Your task to perform on an android device: uninstall "Google Keep" Image 0: 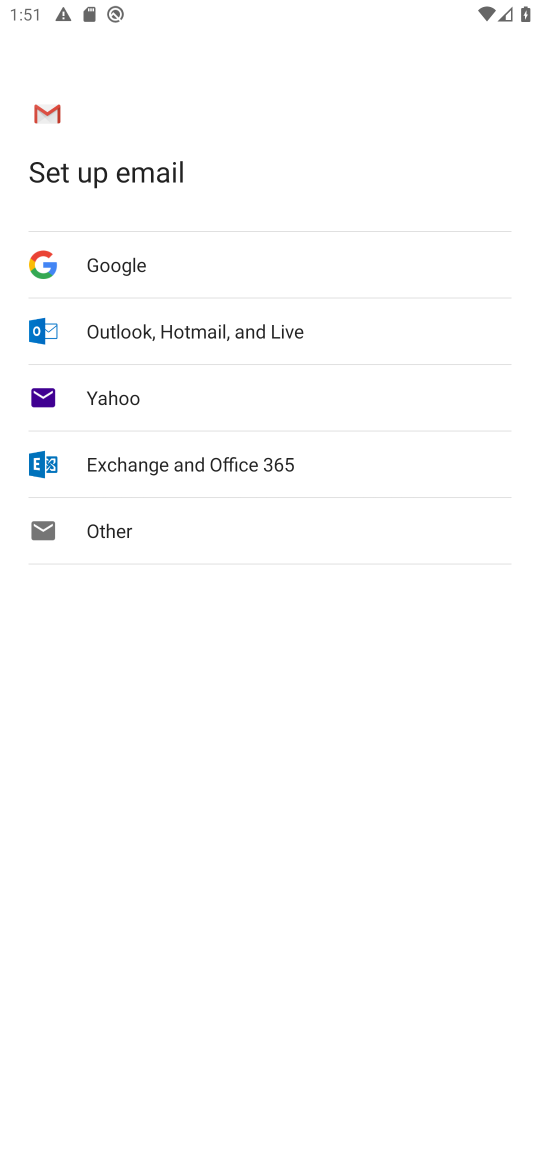
Step 0: press home button
Your task to perform on an android device: uninstall "Google Keep" Image 1: 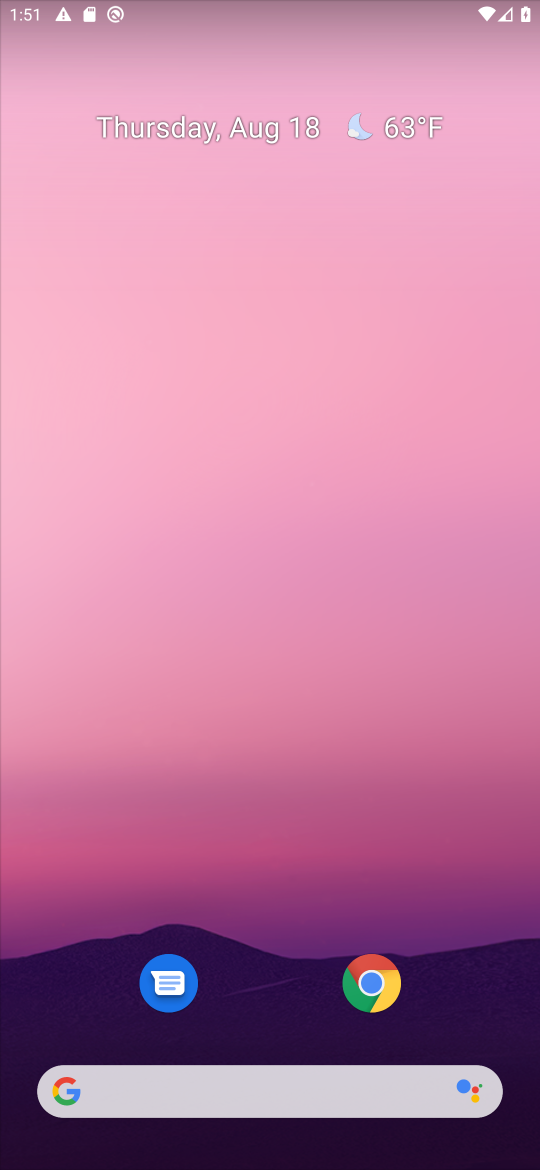
Step 1: drag from (452, 981) to (354, 172)
Your task to perform on an android device: uninstall "Google Keep" Image 2: 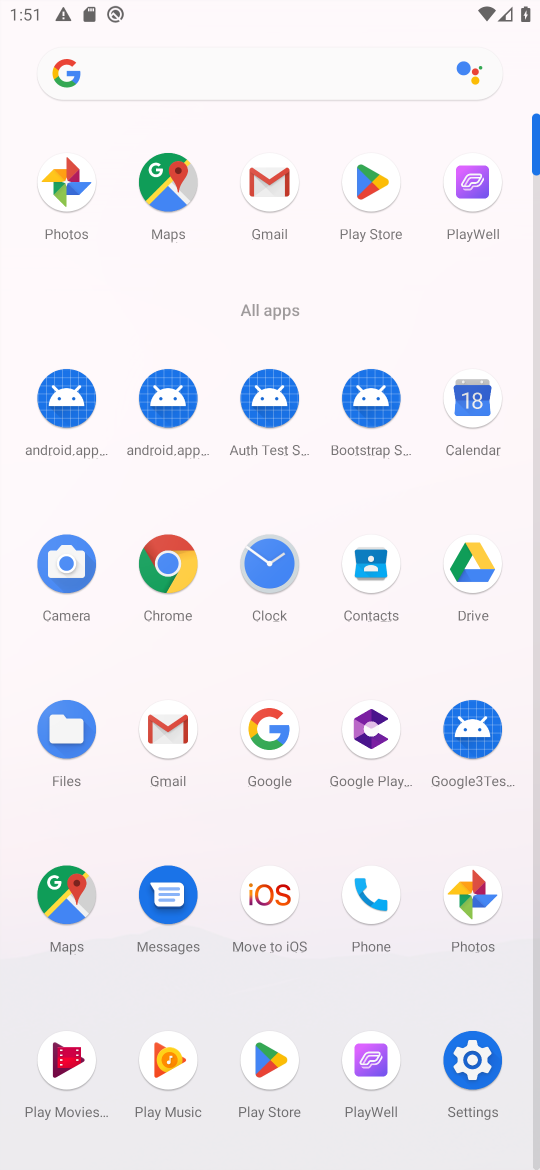
Step 2: click (354, 191)
Your task to perform on an android device: uninstall "Google Keep" Image 3: 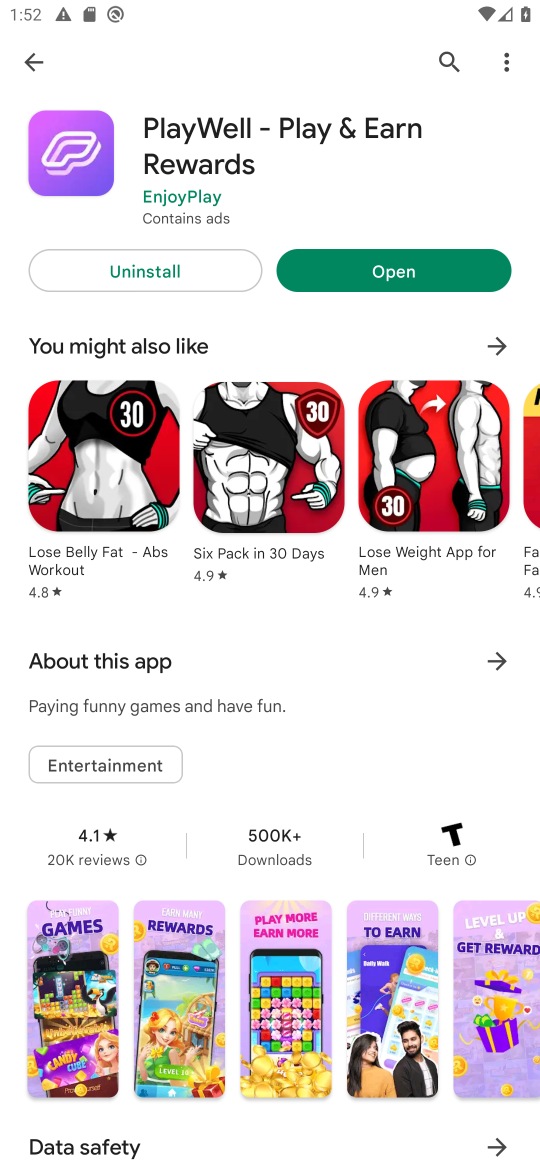
Step 3: click (453, 65)
Your task to perform on an android device: uninstall "Google Keep" Image 4: 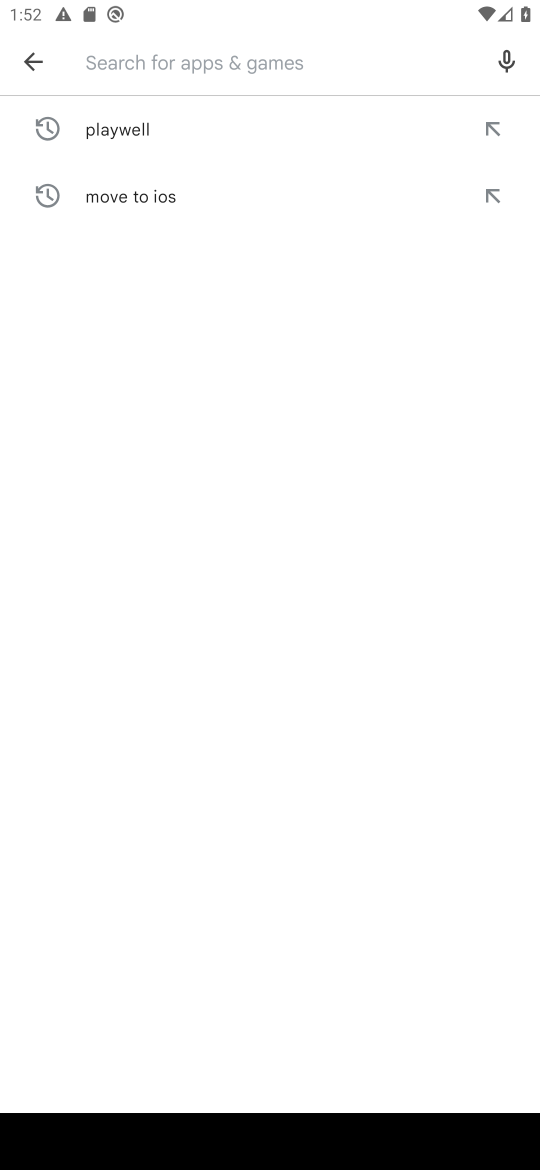
Step 4: type "google keep"
Your task to perform on an android device: uninstall "Google Keep" Image 5: 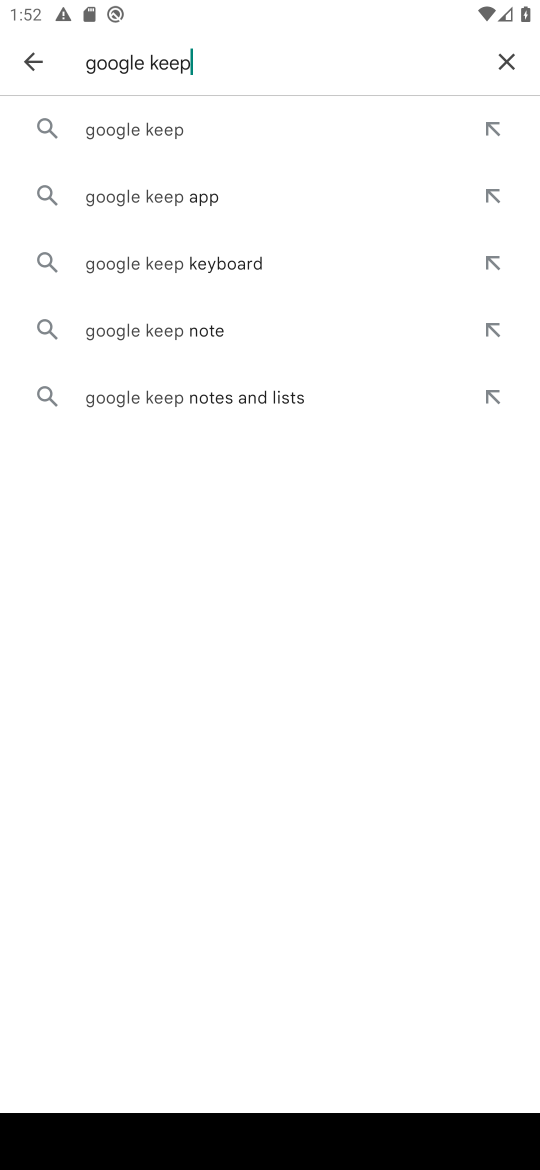
Step 5: click (169, 138)
Your task to perform on an android device: uninstall "Google Keep" Image 6: 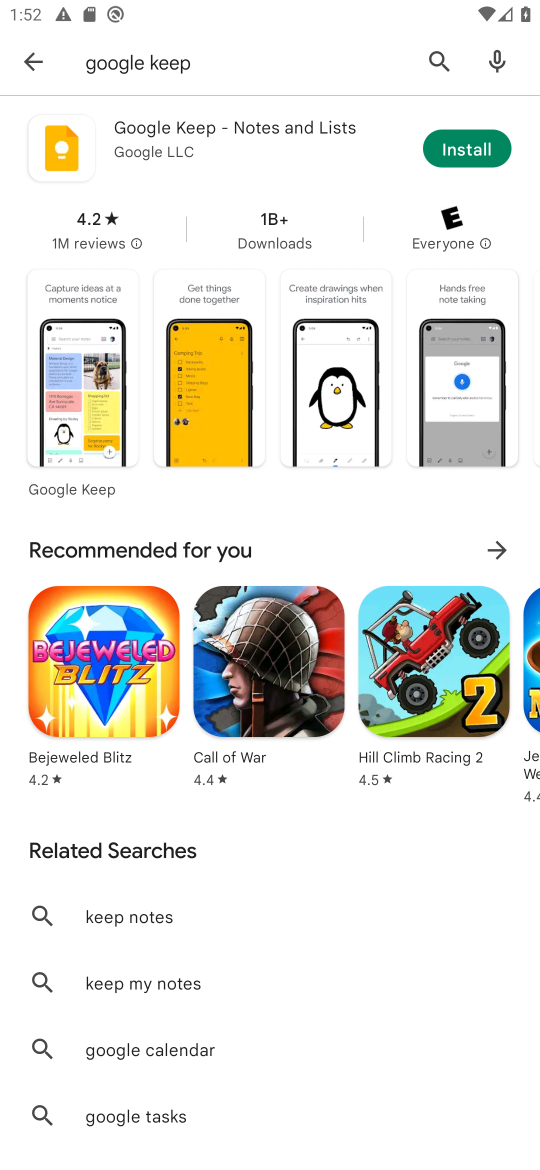
Step 6: task complete